Your task to perform on an android device: turn off priority inbox in the gmail app Image 0: 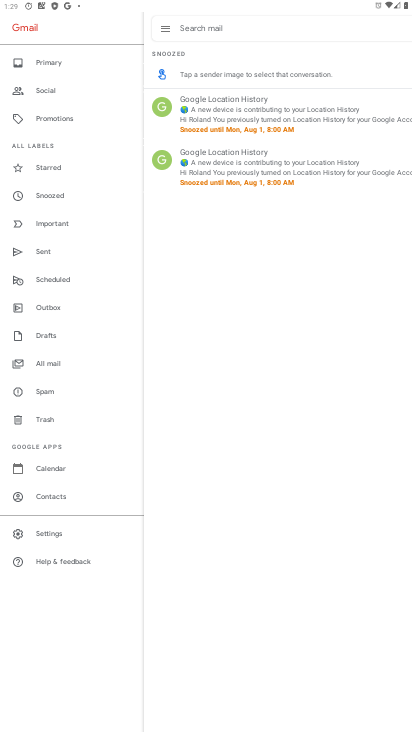
Step 0: click (51, 530)
Your task to perform on an android device: turn off priority inbox in the gmail app Image 1: 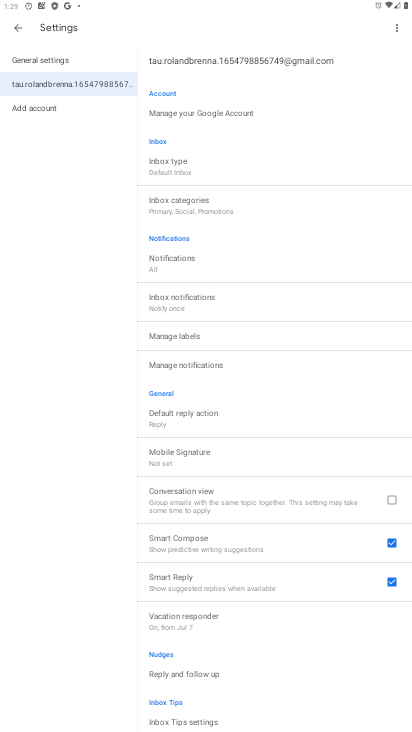
Step 1: click (174, 167)
Your task to perform on an android device: turn off priority inbox in the gmail app Image 2: 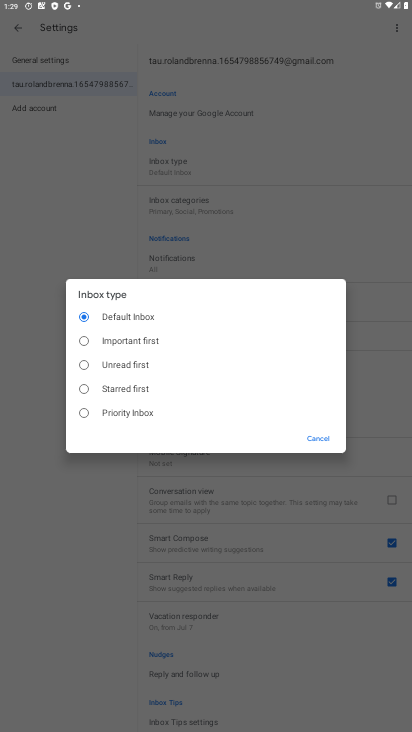
Step 2: task complete